Your task to perform on an android device: install app "Spotify" Image 0: 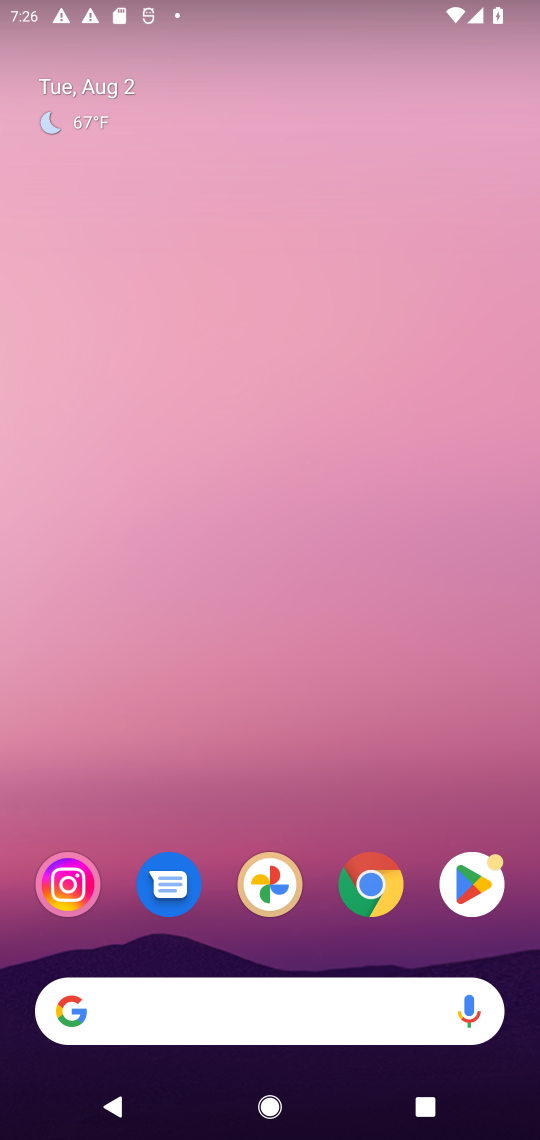
Step 0: press home button
Your task to perform on an android device: install app "Spotify" Image 1: 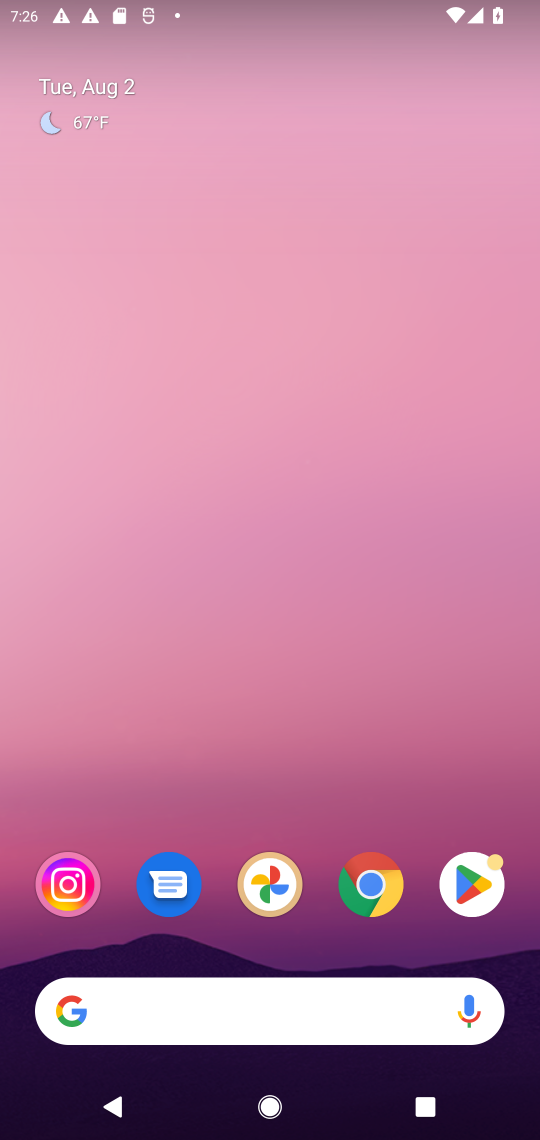
Step 1: click (456, 858)
Your task to perform on an android device: install app "Spotify" Image 2: 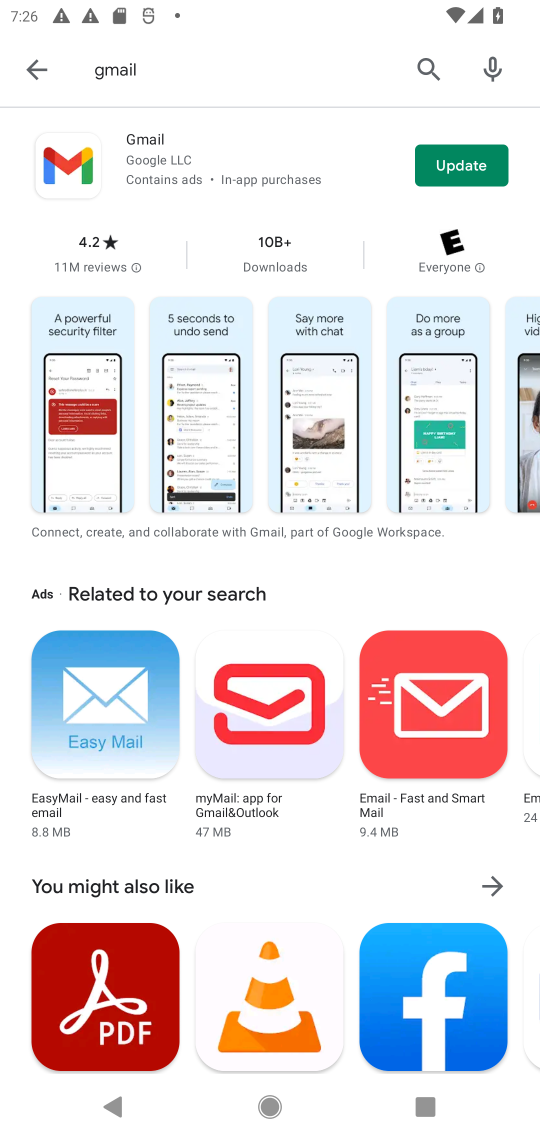
Step 2: click (423, 75)
Your task to perform on an android device: install app "Spotify" Image 3: 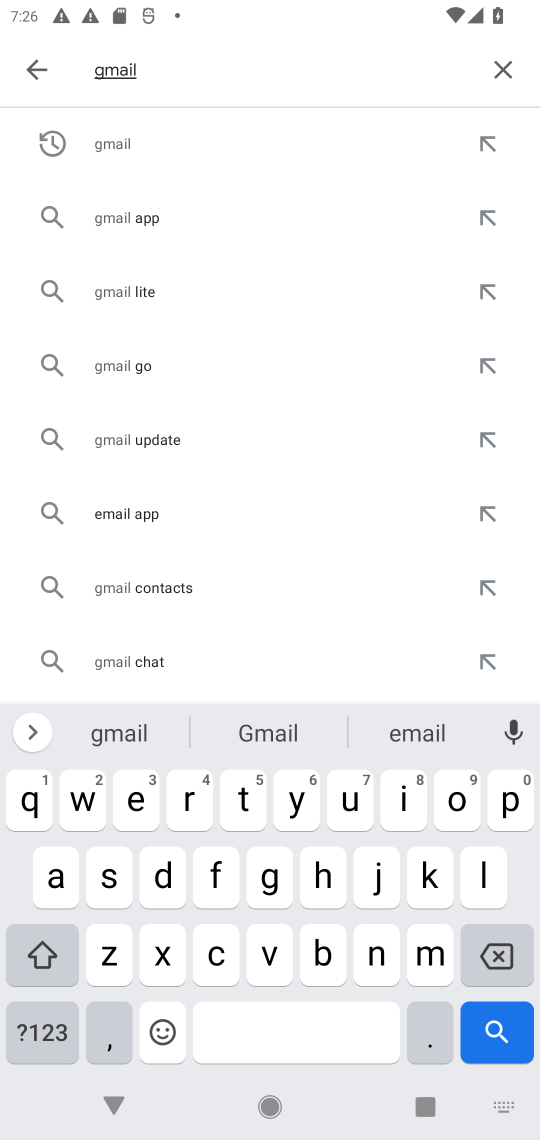
Step 3: click (501, 73)
Your task to perform on an android device: install app "Spotify" Image 4: 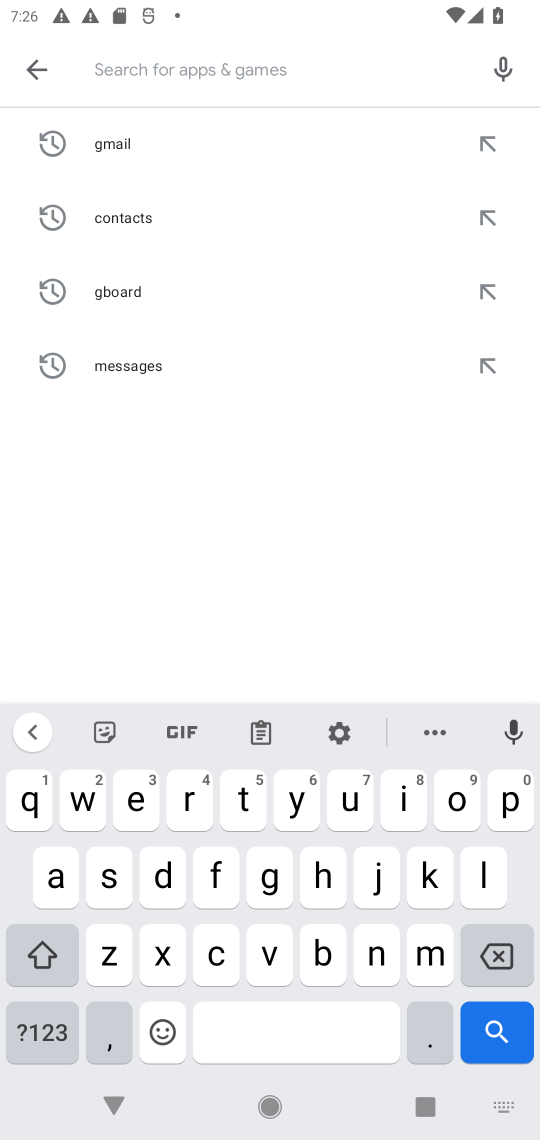
Step 4: click (108, 882)
Your task to perform on an android device: install app "Spotify" Image 5: 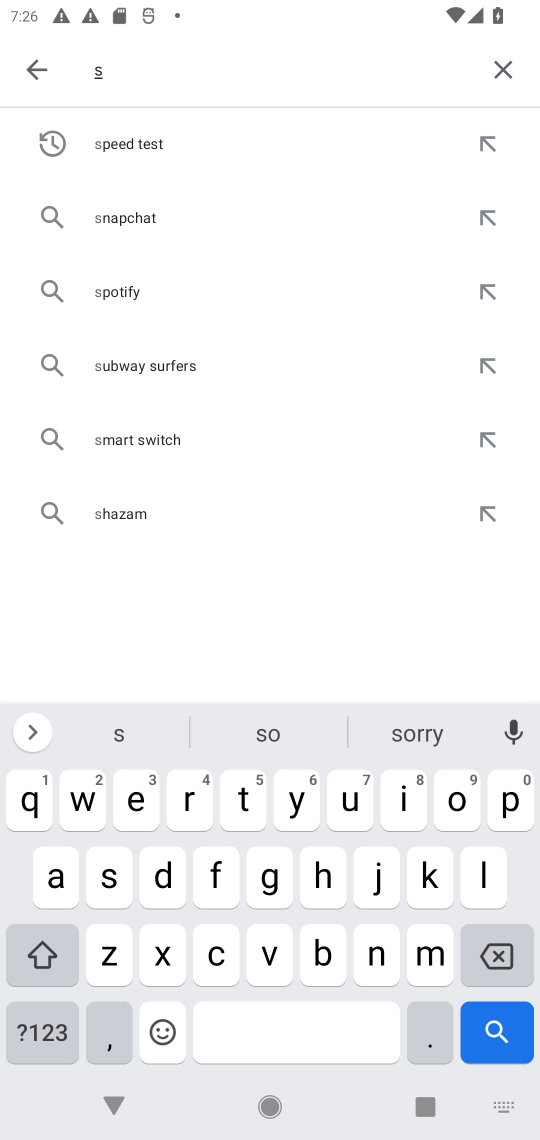
Step 5: click (511, 810)
Your task to perform on an android device: install app "Spotify" Image 6: 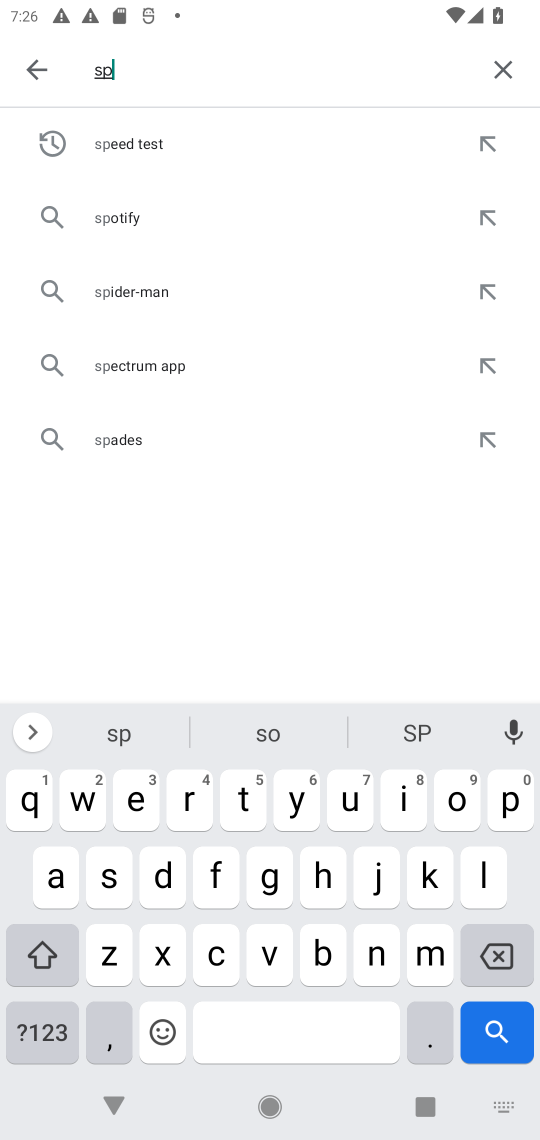
Step 6: click (448, 802)
Your task to perform on an android device: install app "Spotify" Image 7: 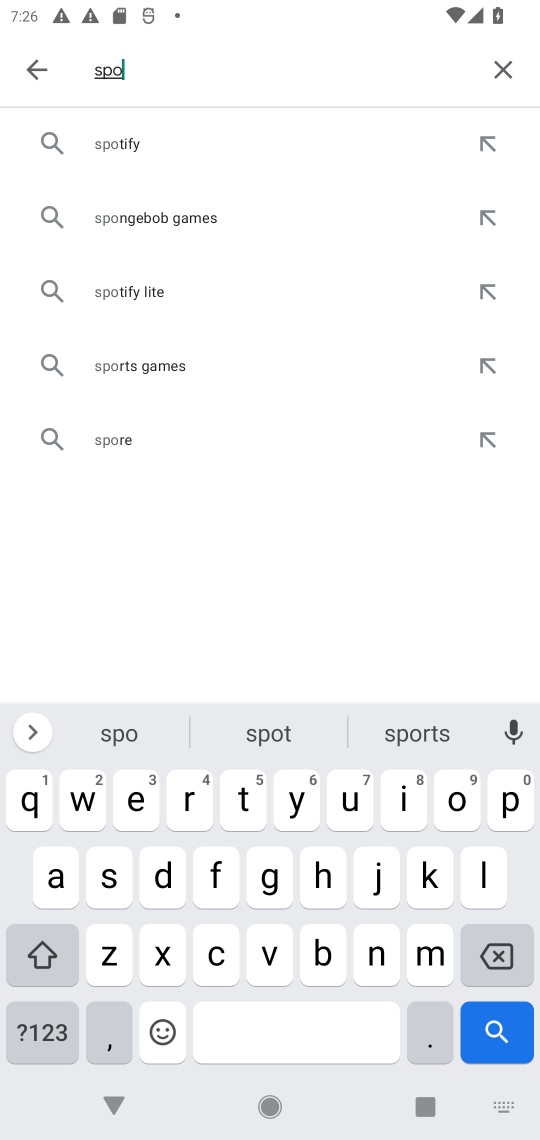
Step 7: click (141, 148)
Your task to perform on an android device: install app "Spotify" Image 8: 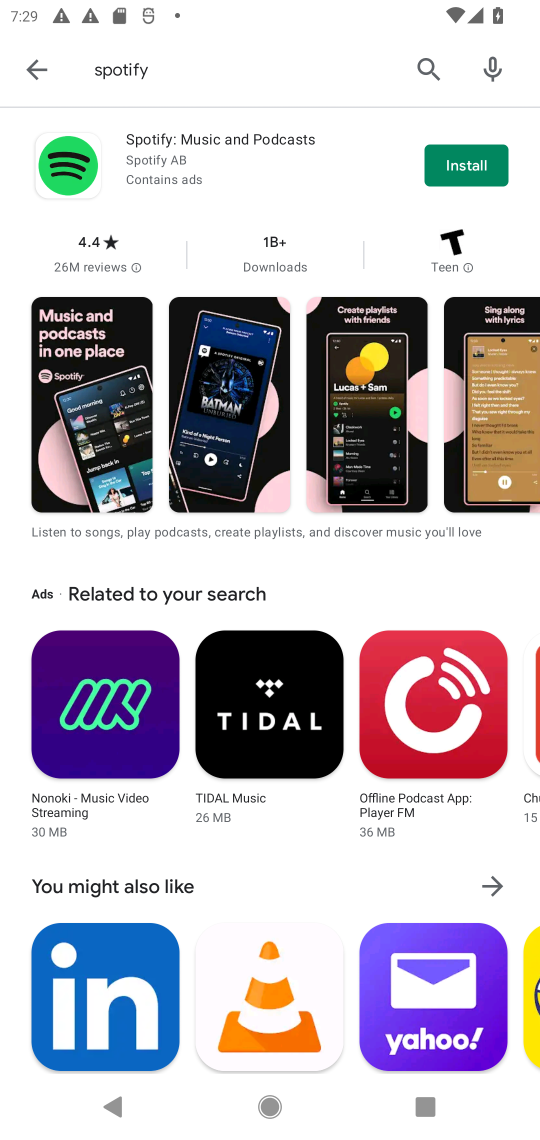
Step 8: click (475, 167)
Your task to perform on an android device: install app "Spotify" Image 9: 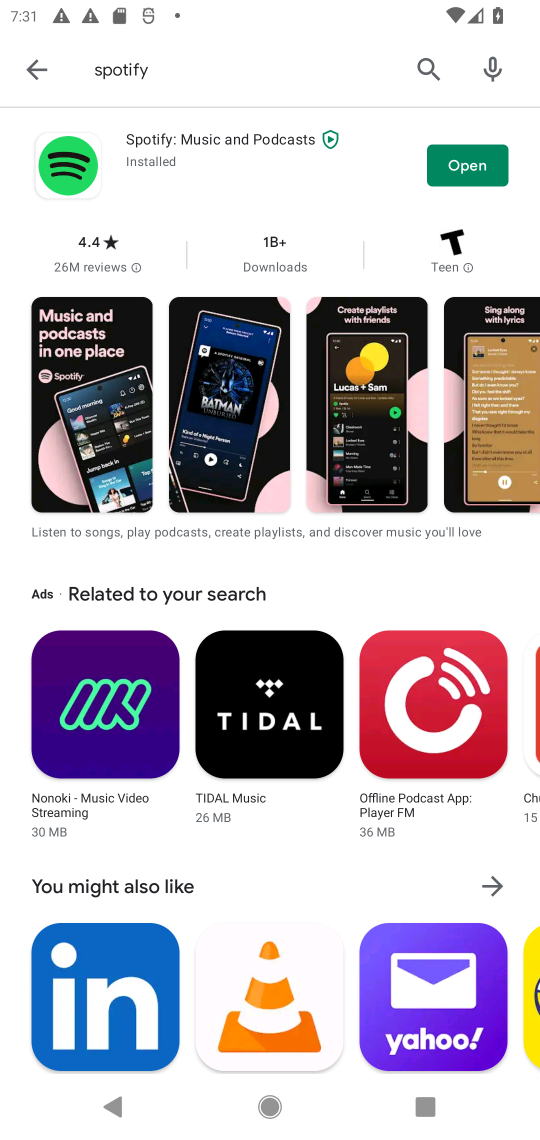
Step 9: task complete